Your task to perform on an android device: Show me the alarms in the clock app Image 0: 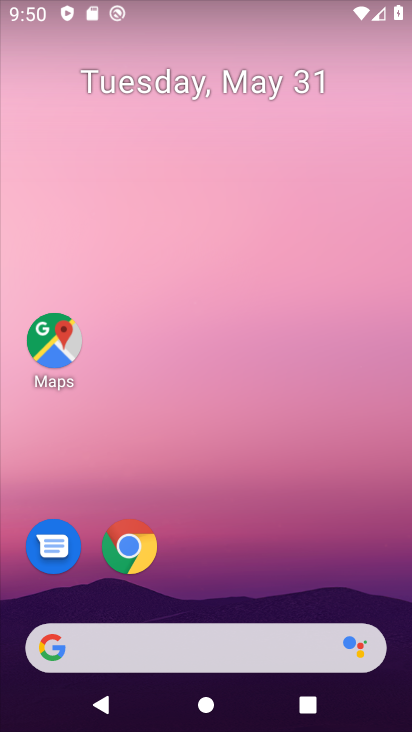
Step 0: drag from (170, 637) to (201, 463)
Your task to perform on an android device: Show me the alarms in the clock app Image 1: 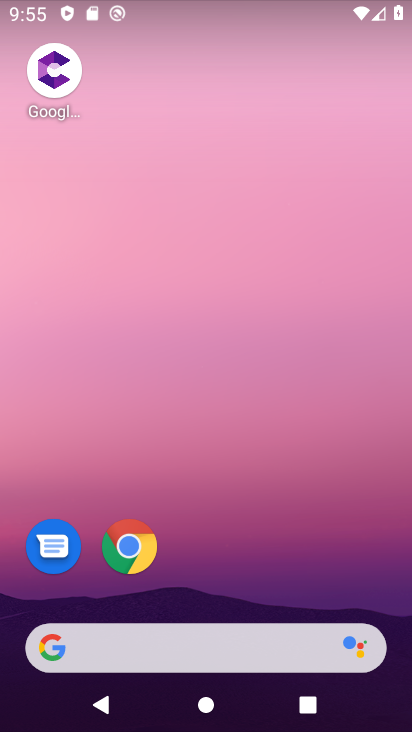
Step 1: drag from (206, 521) to (286, 147)
Your task to perform on an android device: Show me the alarms in the clock app Image 2: 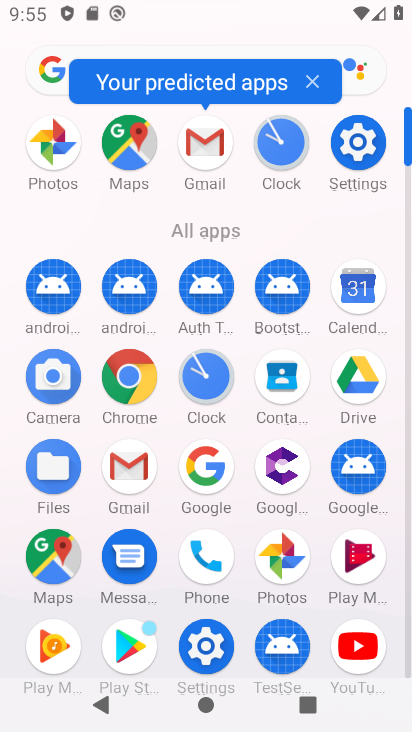
Step 2: click (207, 386)
Your task to perform on an android device: Show me the alarms in the clock app Image 3: 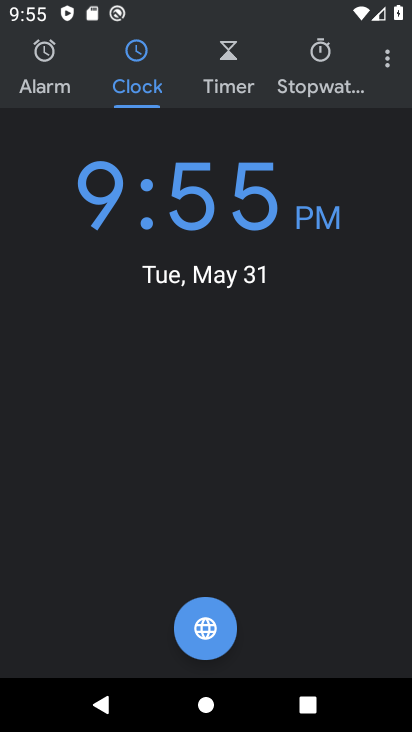
Step 3: click (304, 65)
Your task to perform on an android device: Show me the alarms in the clock app Image 4: 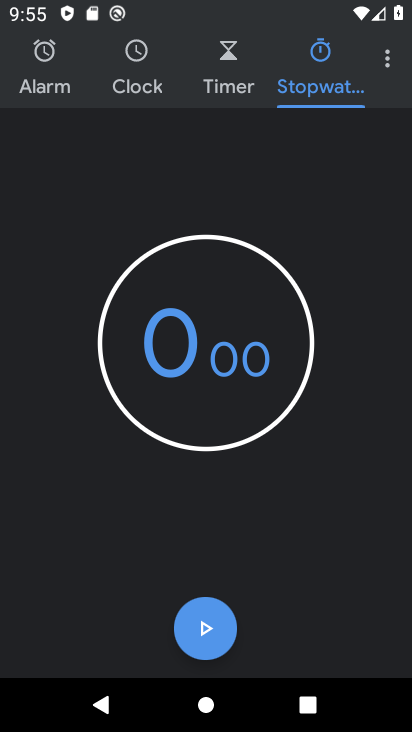
Step 4: click (50, 51)
Your task to perform on an android device: Show me the alarms in the clock app Image 5: 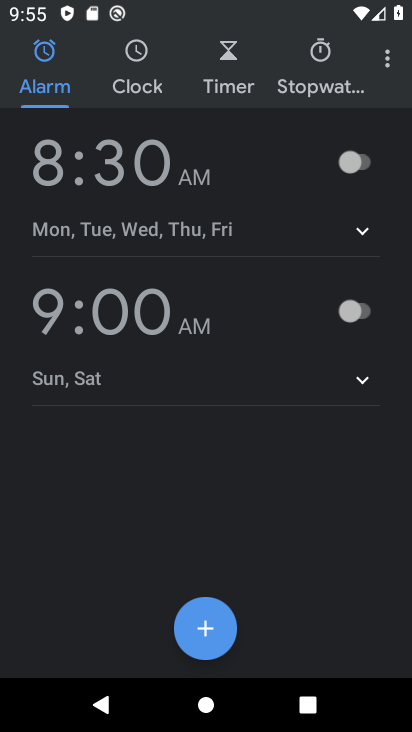
Step 5: task complete